Your task to perform on an android device: find snoozed emails in the gmail app Image 0: 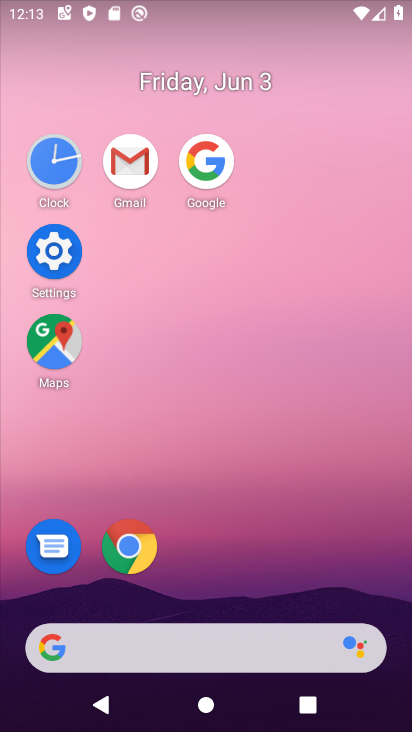
Step 0: click (123, 173)
Your task to perform on an android device: find snoozed emails in the gmail app Image 1: 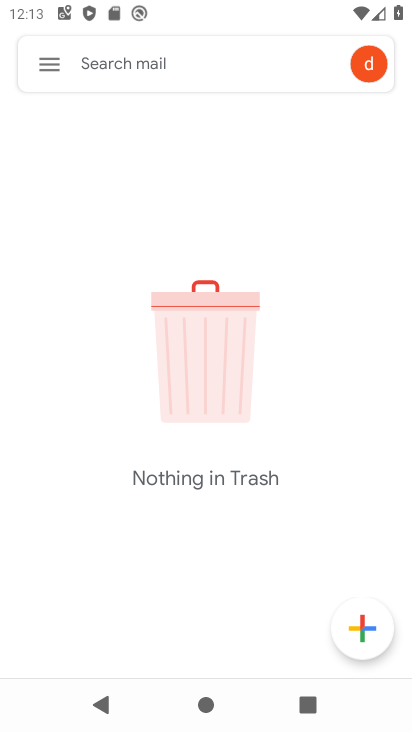
Step 1: click (49, 61)
Your task to perform on an android device: find snoozed emails in the gmail app Image 2: 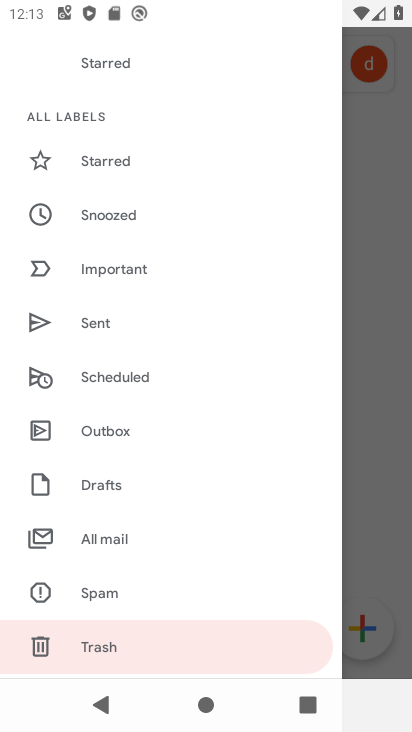
Step 2: click (150, 222)
Your task to perform on an android device: find snoozed emails in the gmail app Image 3: 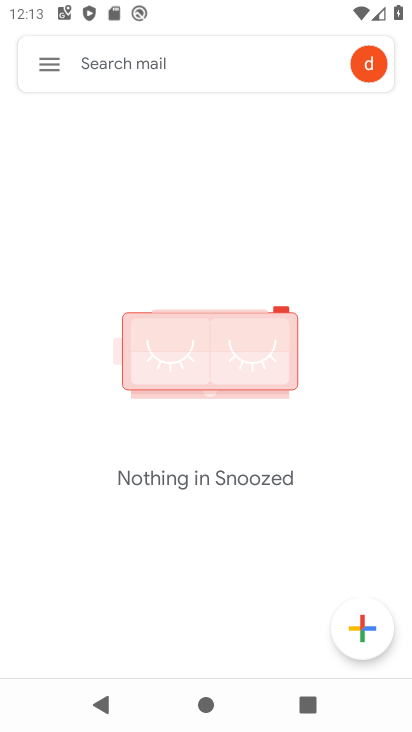
Step 3: task complete